Your task to perform on an android device: move an email to a new category in the gmail app Image 0: 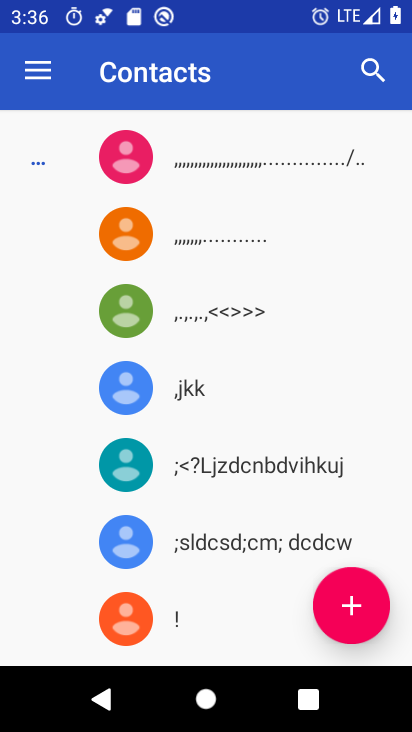
Step 0: press home button
Your task to perform on an android device: move an email to a new category in the gmail app Image 1: 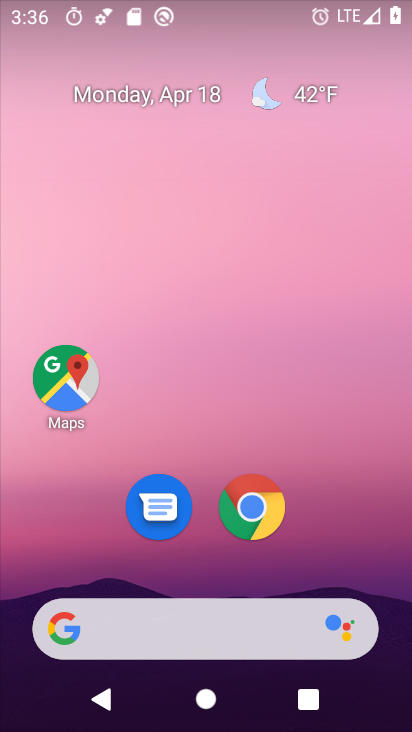
Step 1: drag from (378, 508) to (395, 177)
Your task to perform on an android device: move an email to a new category in the gmail app Image 2: 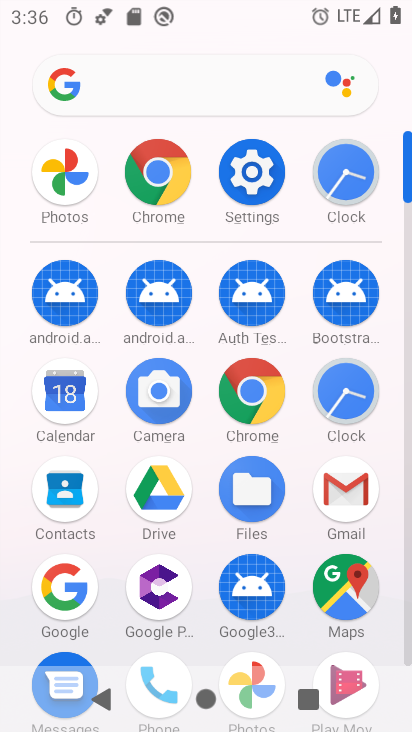
Step 2: click (355, 488)
Your task to perform on an android device: move an email to a new category in the gmail app Image 3: 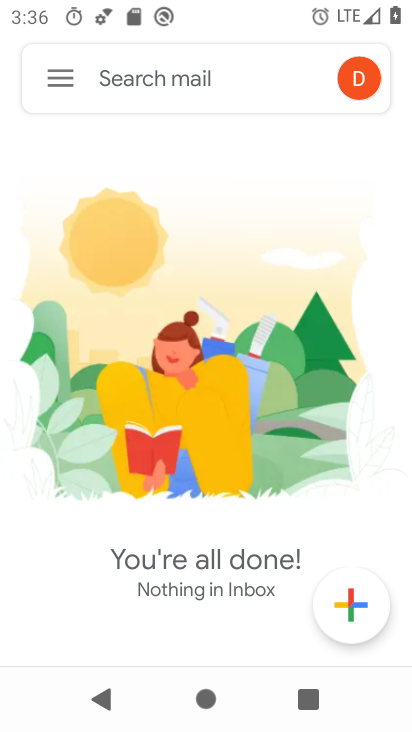
Step 3: click (61, 83)
Your task to perform on an android device: move an email to a new category in the gmail app Image 4: 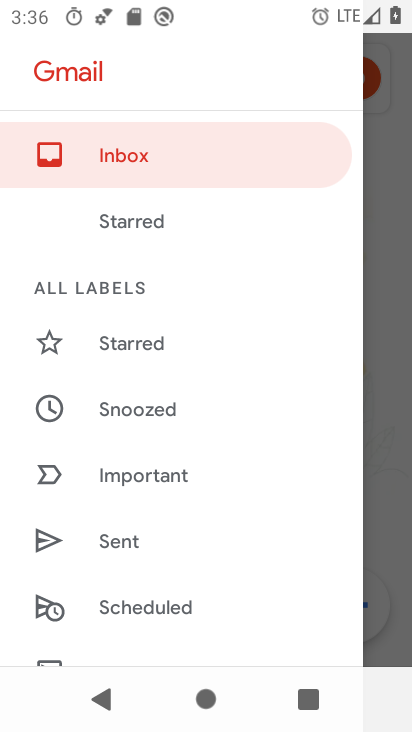
Step 4: drag from (216, 553) to (222, 323)
Your task to perform on an android device: move an email to a new category in the gmail app Image 5: 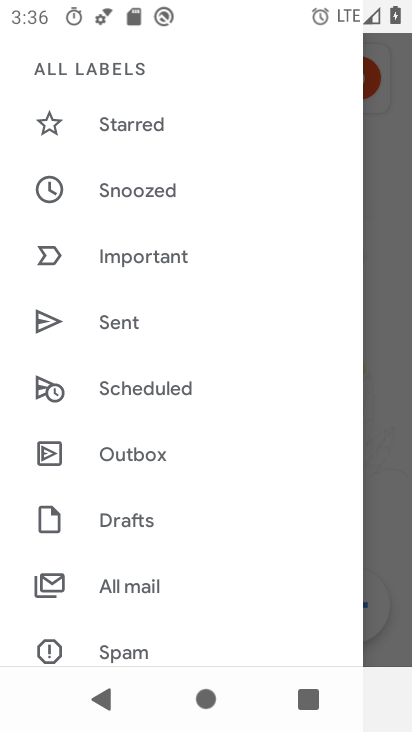
Step 5: click (169, 583)
Your task to perform on an android device: move an email to a new category in the gmail app Image 6: 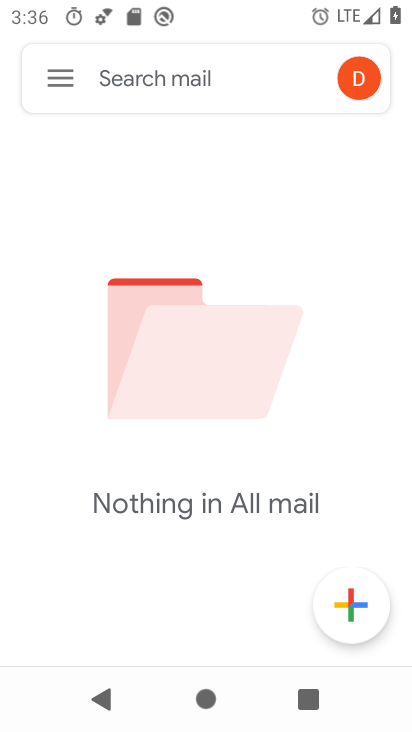
Step 6: task complete